Your task to perform on an android device: Do I have any events today? Image 0: 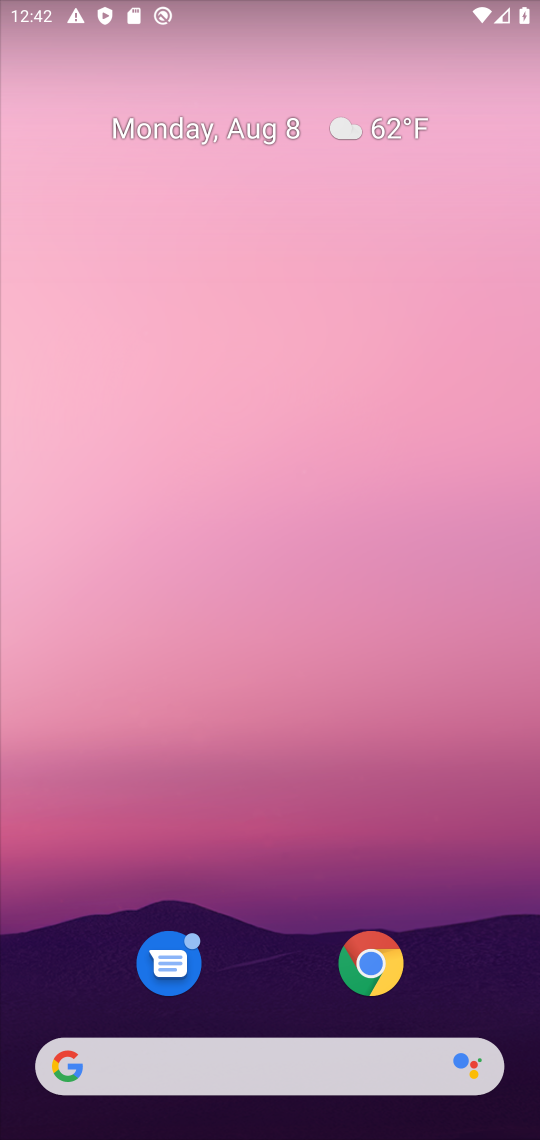
Step 0: drag from (474, 745) to (263, 38)
Your task to perform on an android device: Do I have any events today? Image 1: 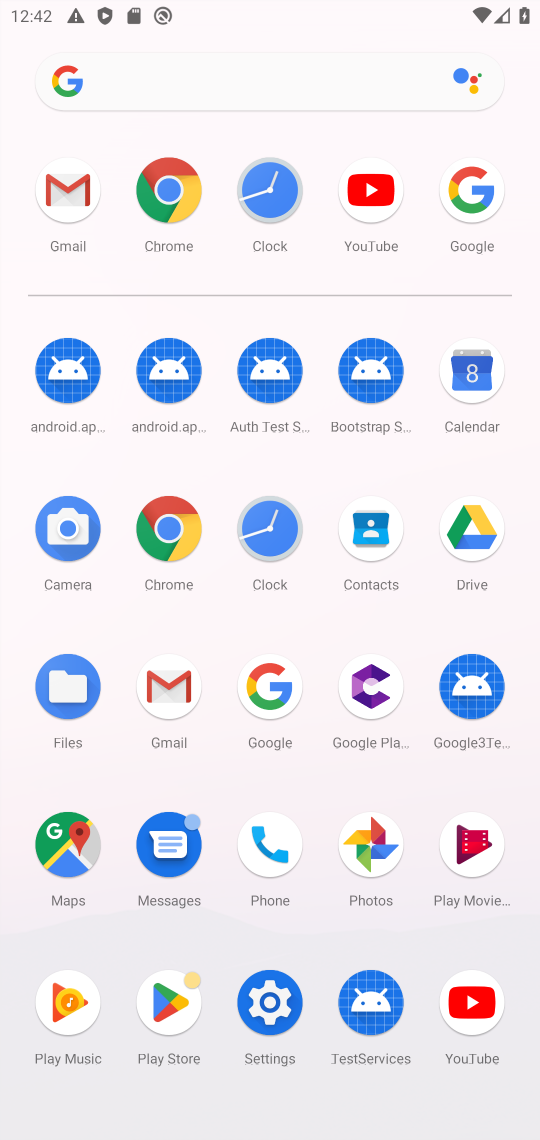
Step 1: click (459, 380)
Your task to perform on an android device: Do I have any events today? Image 2: 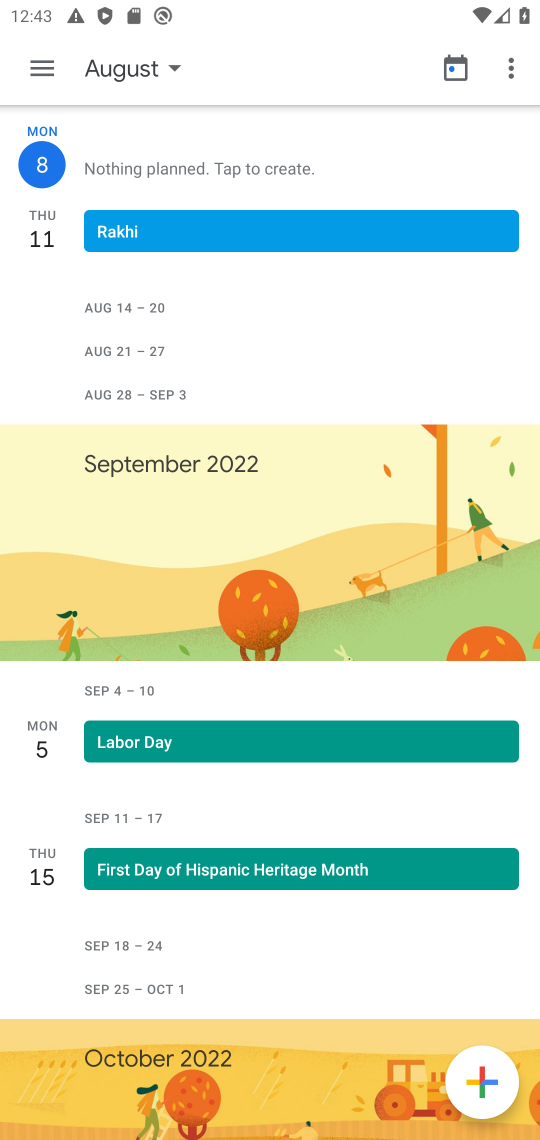
Step 2: task complete